Your task to perform on an android device: Go to notification settings Image 0: 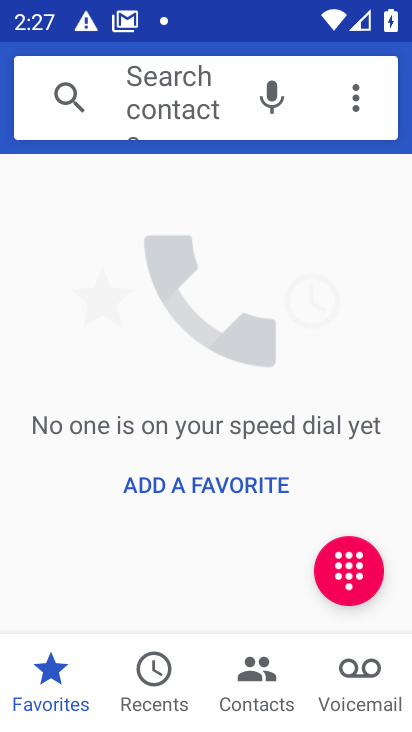
Step 0: press home button
Your task to perform on an android device: Go to notification settings Image 1: 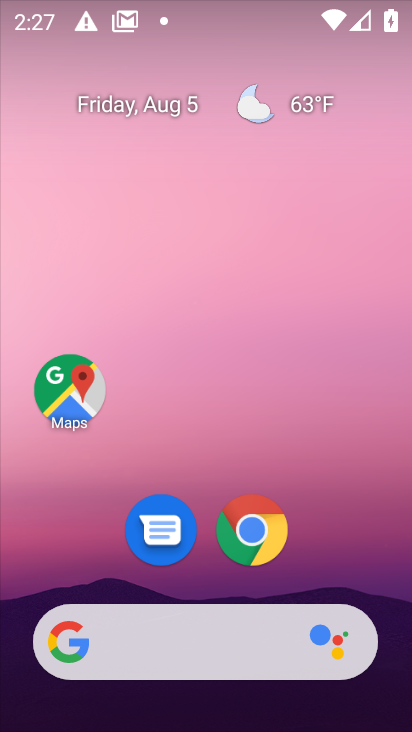
Step 1: drag from (222, 454) to (286, 15)
Your task to perform on an android device: Go to notification settings Image 2: 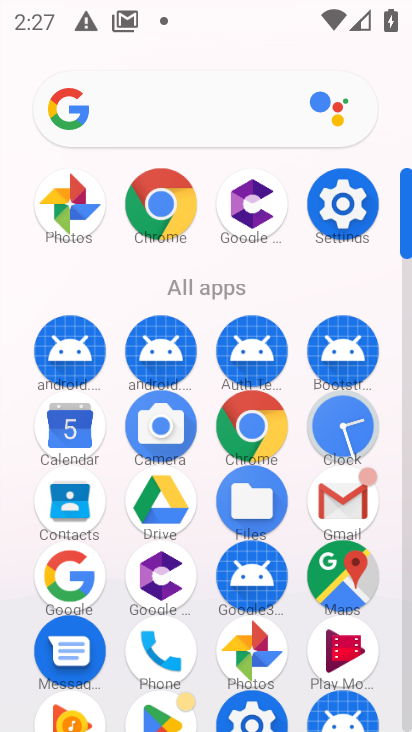
Step 2: click (345, 185)
Your task to perform on an android device: Go to notification settings Image 3: 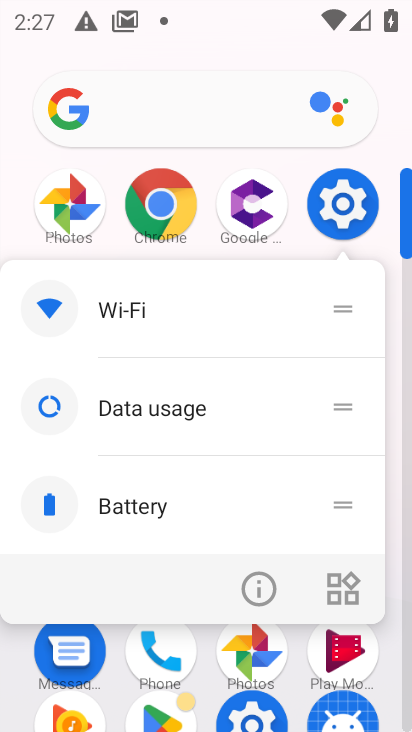
Step 3: click (338, 206)
Your task to perform on an android device: Go to notification settings Image 4: 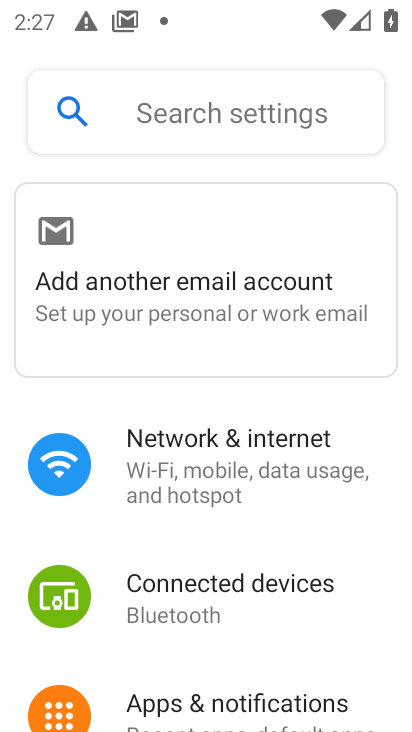
Step 4: click (236, 704)
Your task to perform on an android device: Go to notification settings Image 5: 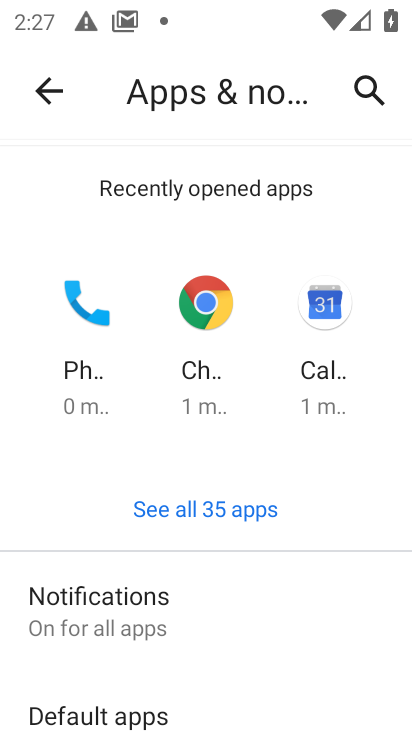
Step 5: task complete